Your task to perform on an android device: open device folders in google photos Image 0: 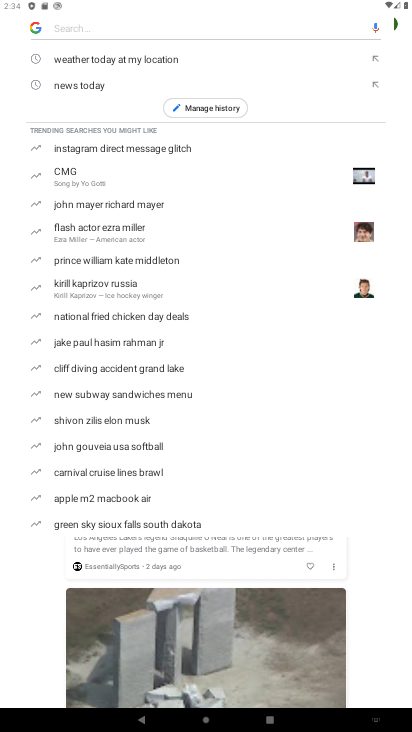
Step 0: press back button
Your task to perform on an android device: open device folders in google photos Image 1: 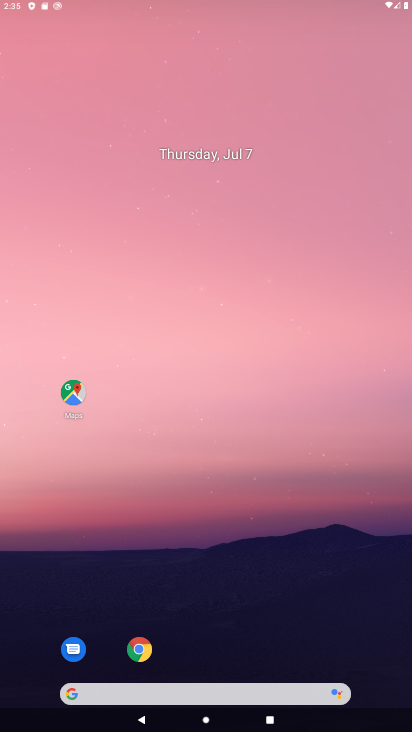
Step 1: drag from (176, 636) to (253, 37)
Your task to perform on an android device: open device folders in google photos Image 2: 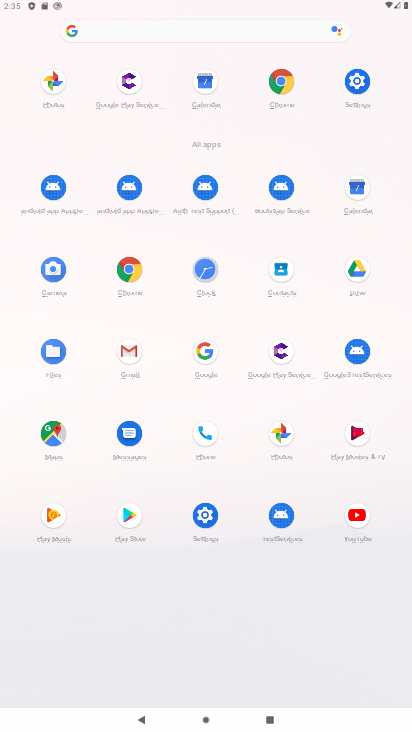
Step 2: click (286, 435)
Your task to perform on an android device: open device folders in google photos Image 3: 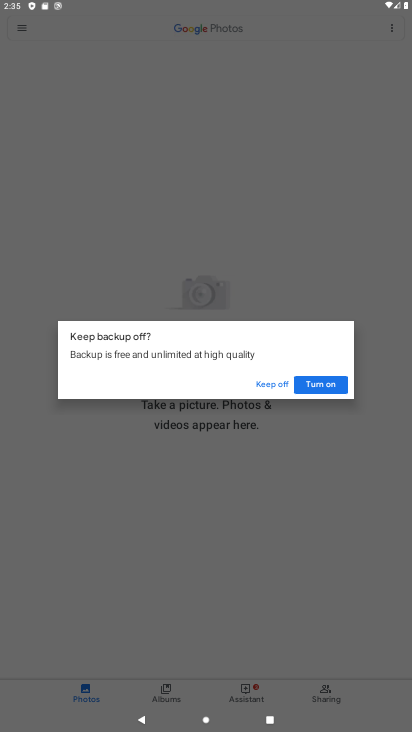
Step 3: click (263, 382)
Your task to perform on an android device: open device folders in google photos Image 4: 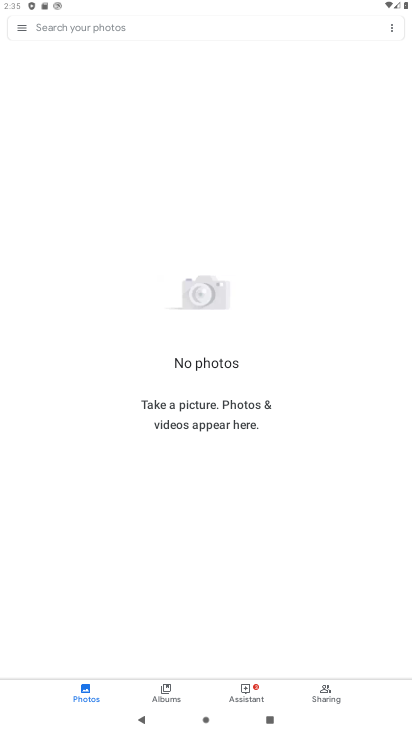
Step 4: click (86, 689)
Your task to perform on an android device: open device folders in google photos Image 5: 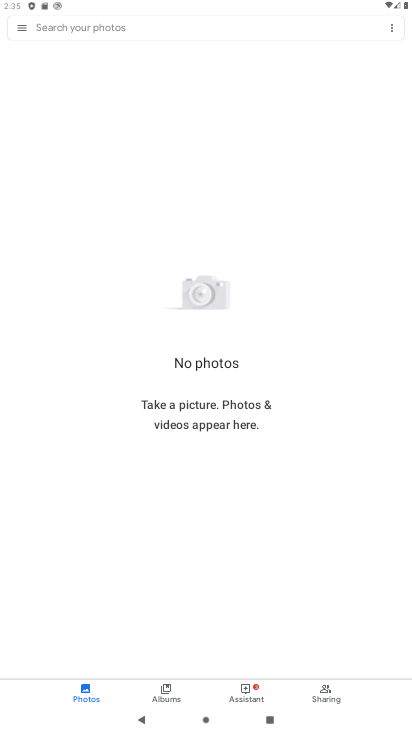
Step 5: task complete